Your task to perform on an android device: create a new album in the google photos Image 0: 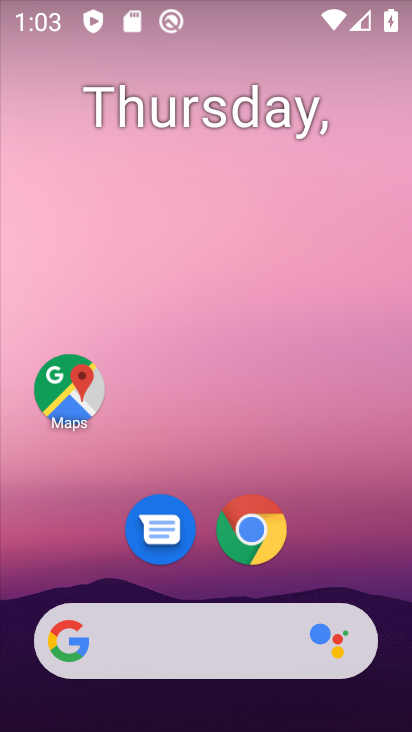
Step 0: drag from (340, 509) to (346, 45)
Your task to perform on an android device: create a new album in the google photos Image 1: 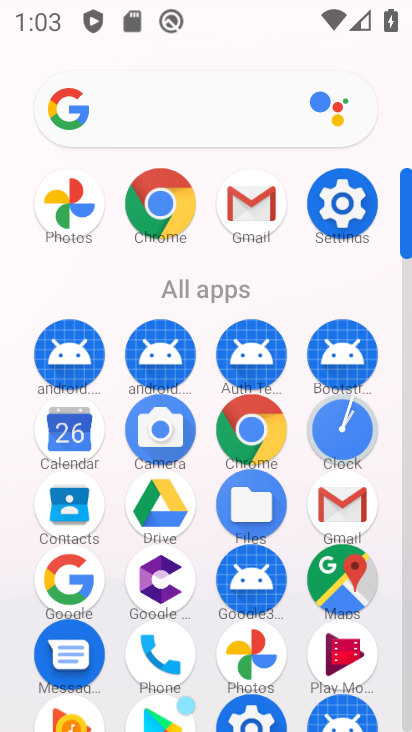
Step 1: click (255, 663)
Your task to perform on an android device: create a new album in the google photos Image 2: 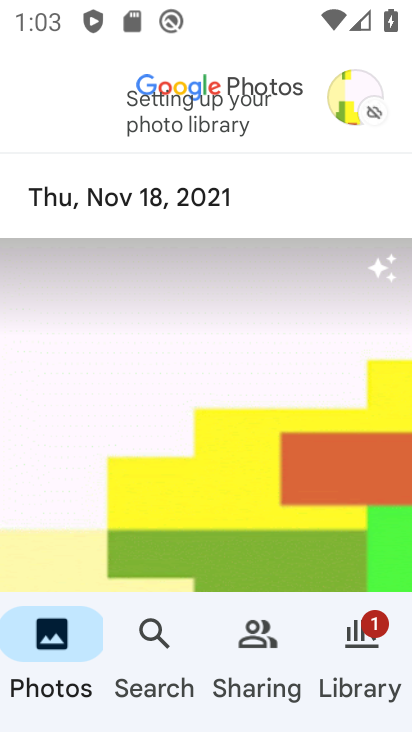
Step 2: click (367, 628)
Your task to perform on an android device: create a new album in the google photos Image 3: 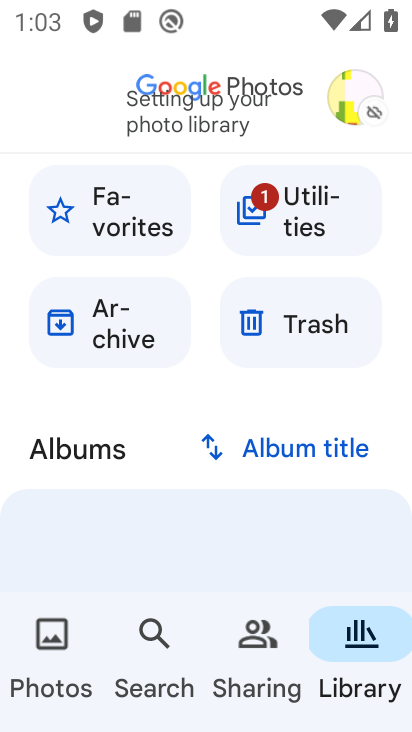
Step 3: drag from (153, 538) to (156, 216)
Your task to perform on an android device: create a new album in the google photos Image 4: 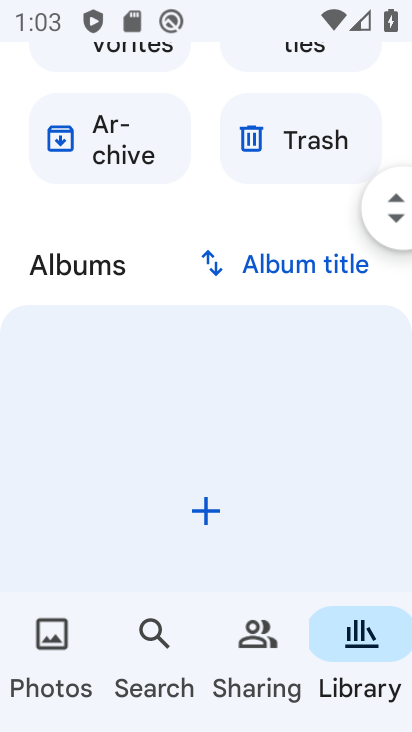
Step 4: click (202, 510)
Your task to perform on an android device: create a new album in the google photos Image 5: 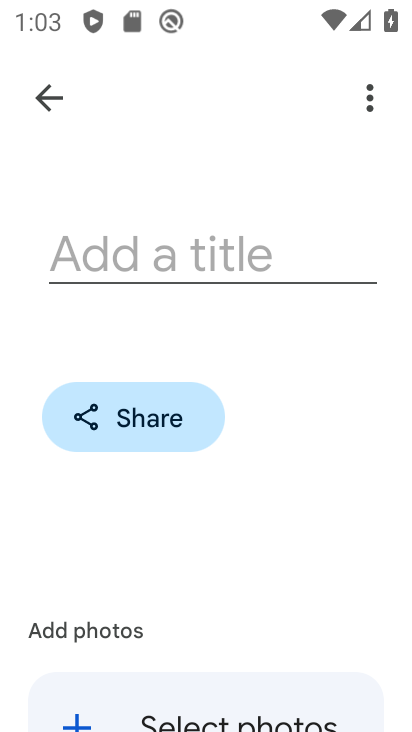
Step 5: click (221, 241)
Your task to perform on an android device: create a new album in the google photos Image 6: 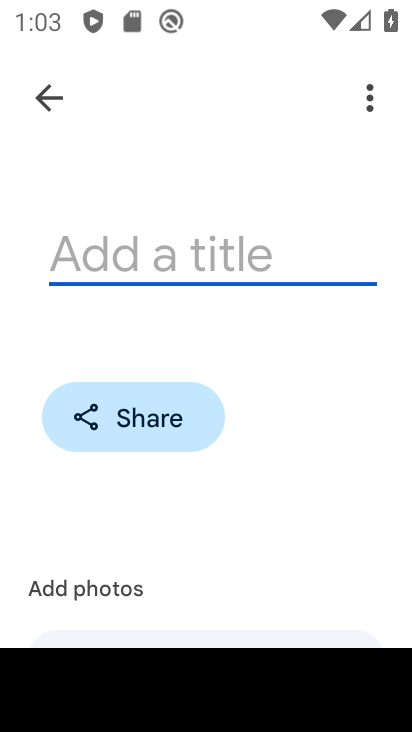
Step 6: type "indn"
Your task to perform on an android device: create a new album in the google photos Image 7: 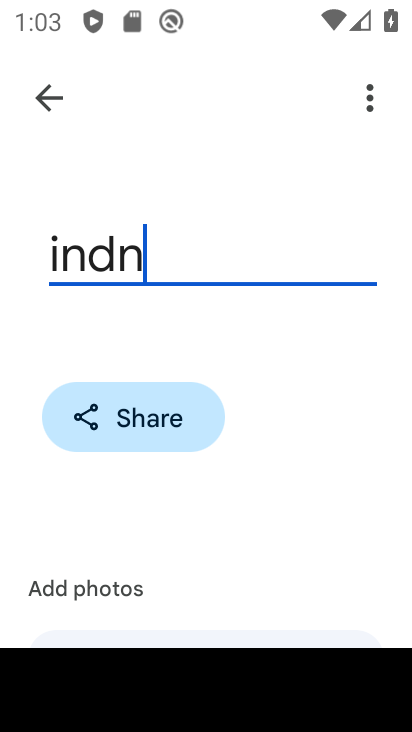
Step 7: drag from (210, 543) to (339, 150)
Your task to perform on an android device: create a new album in the google photos Image 8: 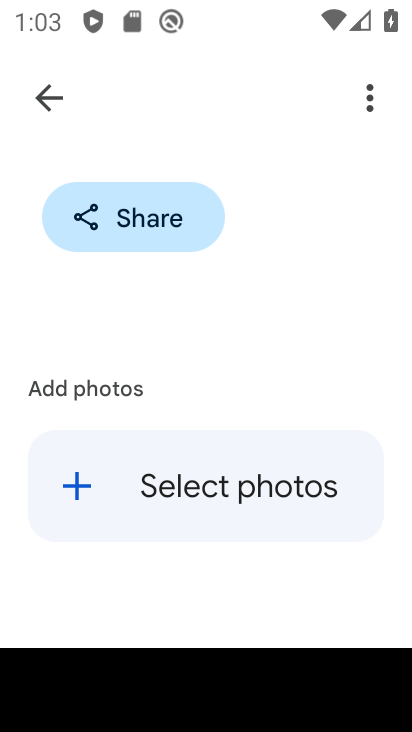
Step 8: click (62, 497)
Your task to perform on an android device: create a new album in the google photos Image 9: 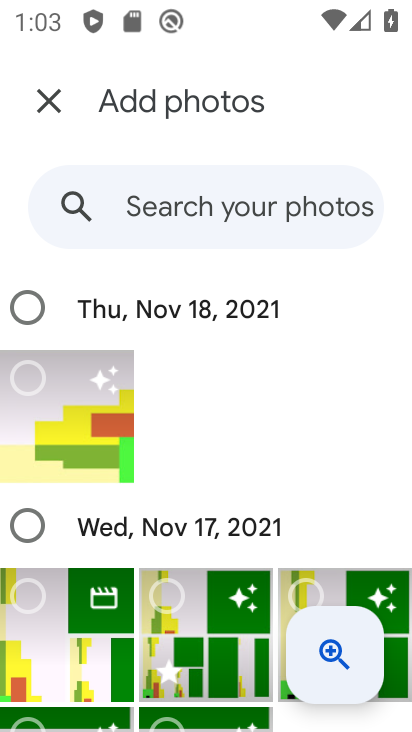
Step 9: click (25, 389)
Your task to perform on an android device: create a new album in the google photos Image 10: 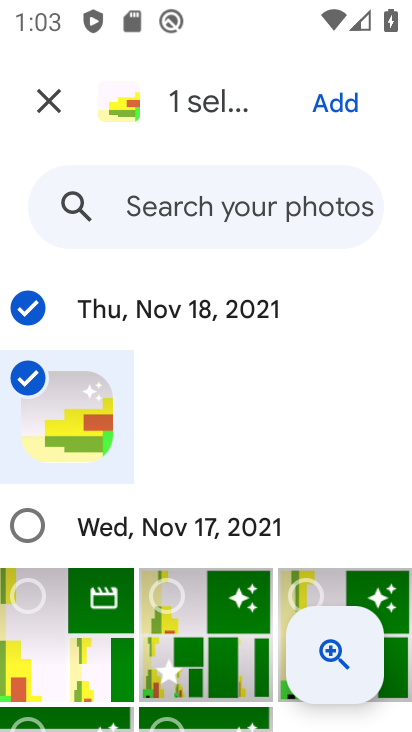
Step 10: click (359, 95)
Your task to perform on an android device: create a new album in the google photos Image 11: 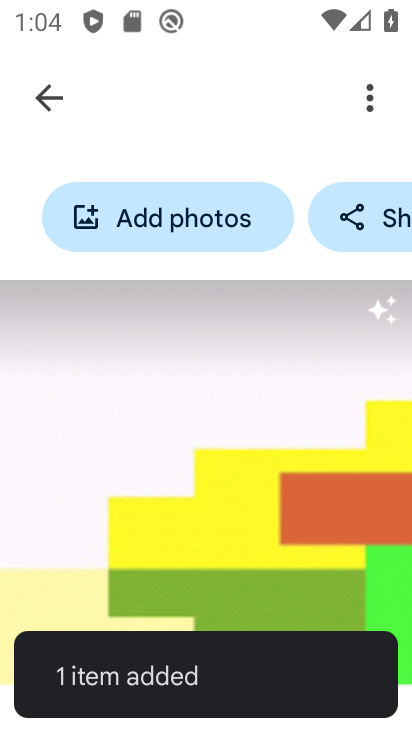
Step 11: task complete